Your task to perform on an android device: Go to Google Image 0: 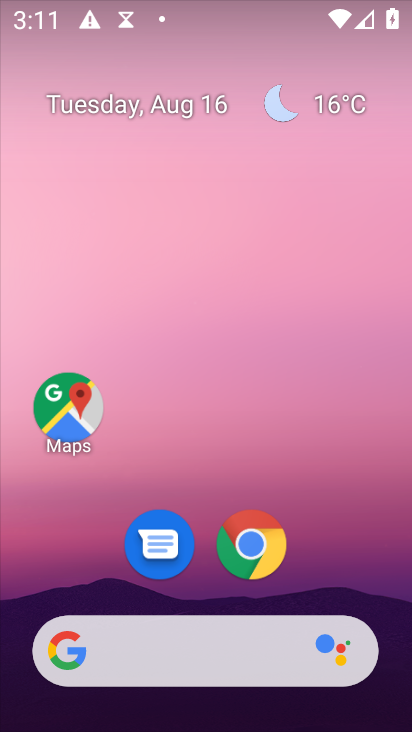
Step 0: drag from (171, 661) to (265, 128)
Your task to perform on an android device: Go to Google Image 1: 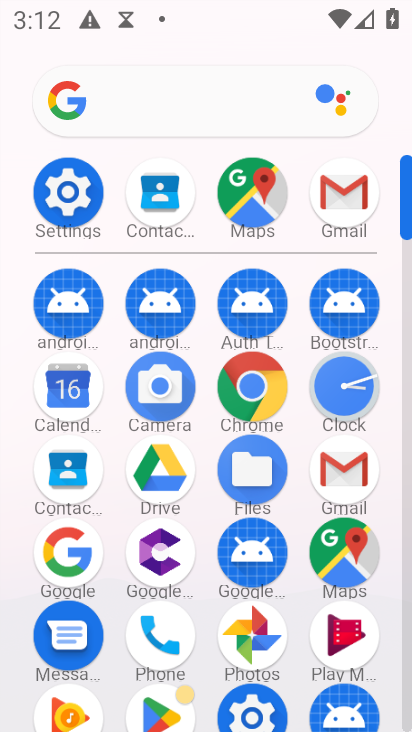
Step 1: click (63, 551)
Your task to perform on an android device: Go to Google Image 2: 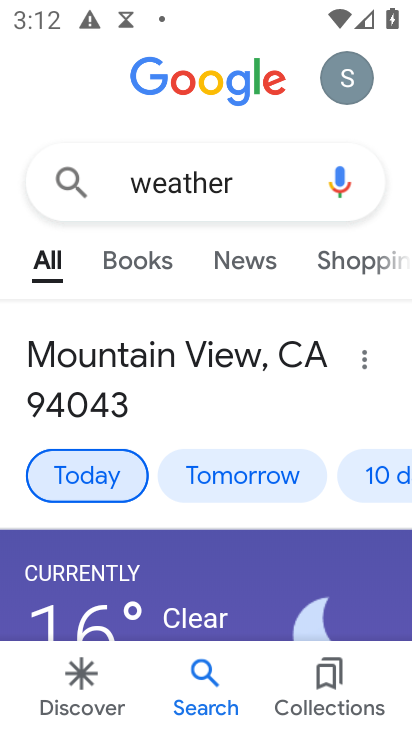
Step 2: task complete